Your task to perform on an android device: Open display settings Image 0: 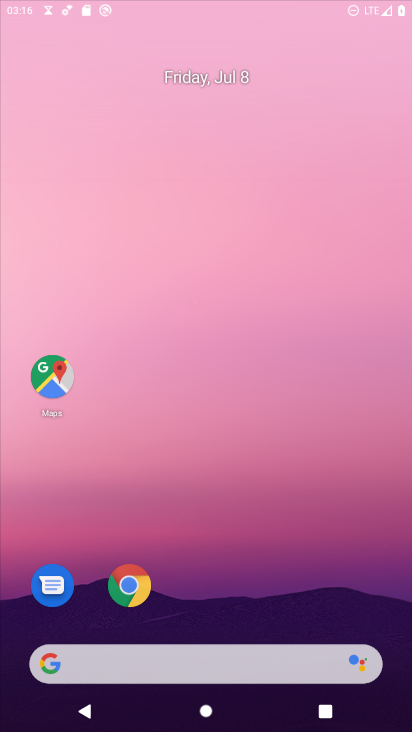
Step 0: press home button
Your task to perform on an android device: Open display settings Image 1: 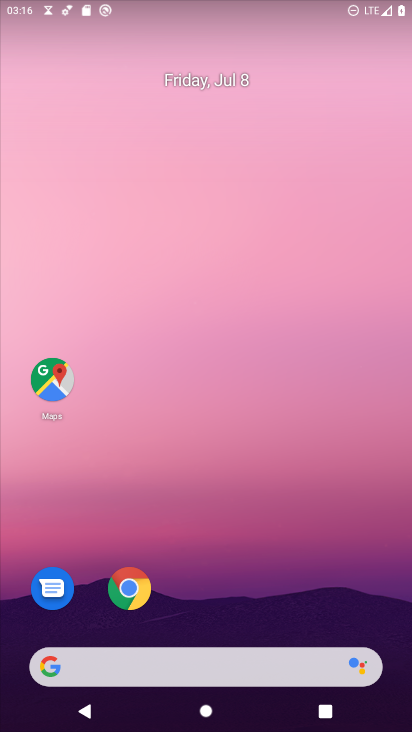
Step 1: press home button
Your task to perform on an android device: Open display settings Image 2: 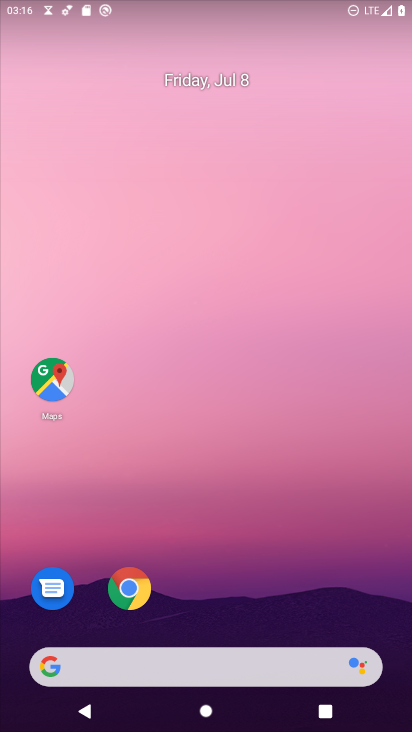
Step 2: drag from (178, 201) to (214, 108)
Your task to perform on an android device: Open display settings Image 3: 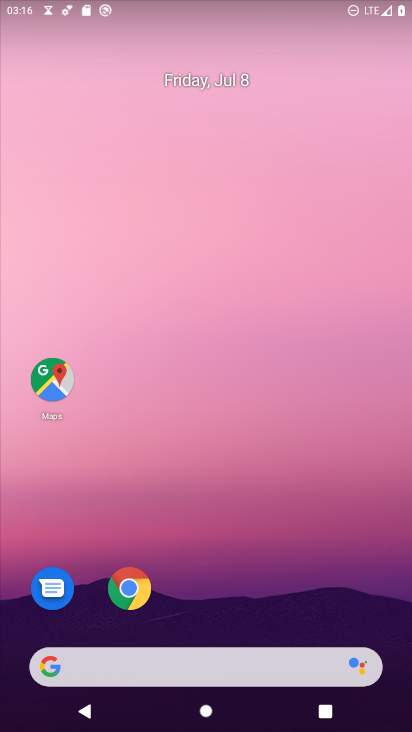
Step 3: drag from (207, 532) to (185, 26)
Your task to perform on an android device: Open display settings Image 4: 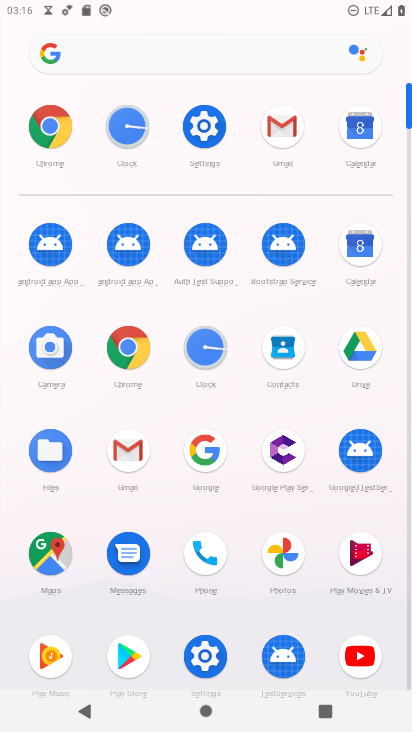
Step 4: click (202, 132)
Your task to perform on an android device: Open display settings Image 5: 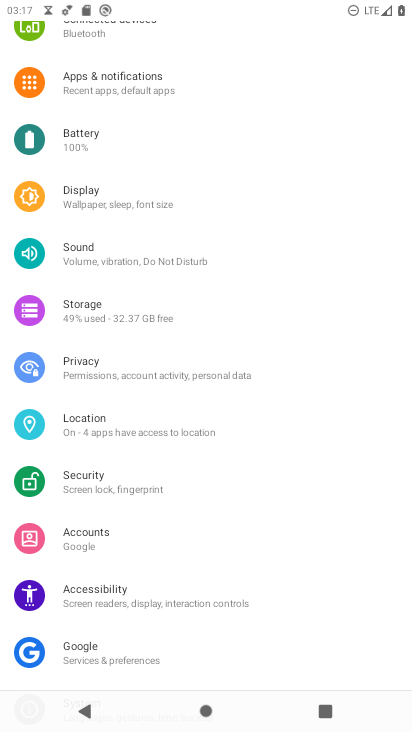
Step 5: click (82, 207)
Your task to perform on an android device: Open display settings Image 6: 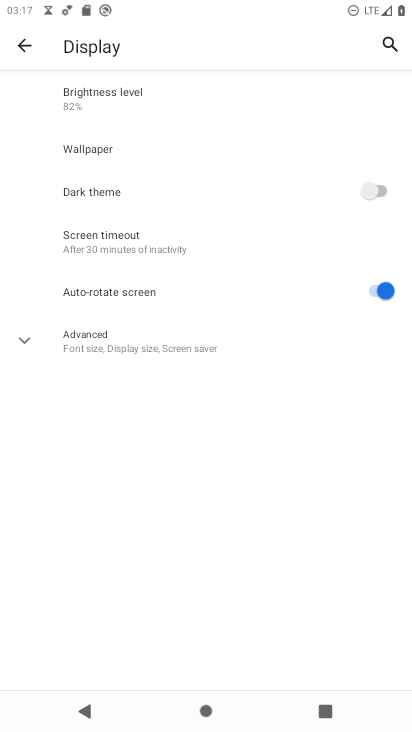
Step 6: task complete